Your task to perform on an android device: all mails in gmail Image 0: 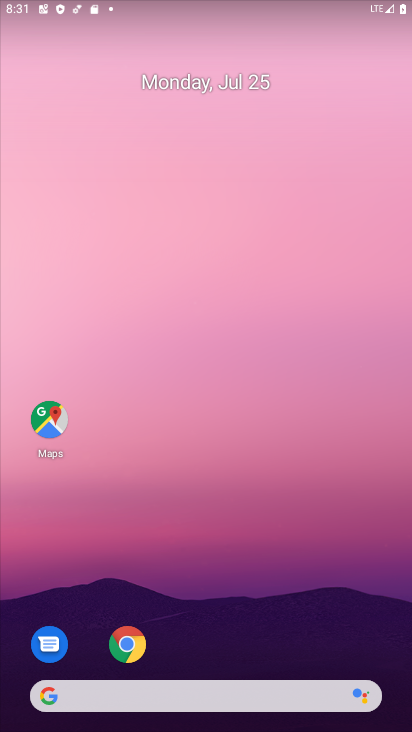
Step 0: drag from (226, 509) to (226, 103)
Your task to perform on an android device: all mails in gmail Image 1: 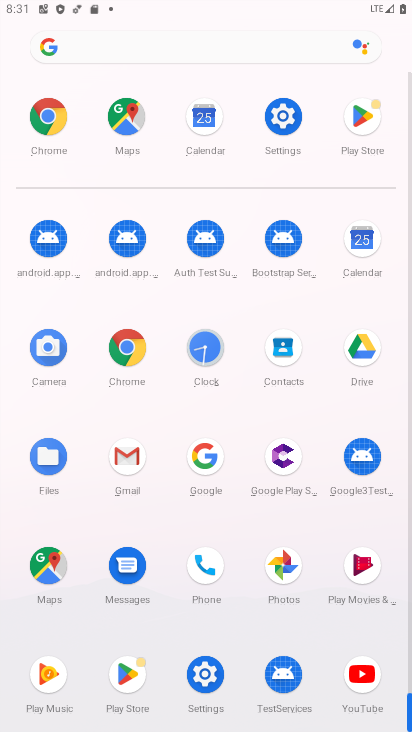
Step 1: click (138, 473)
Your task to perform on an android device: all mails in gmail Image 2: 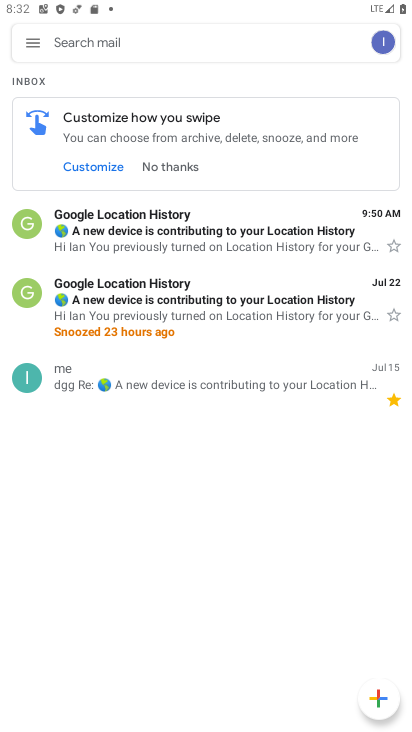
Step 2: click (35, 50)
Your task to perform on an android device: all mails in gmail Image 3: 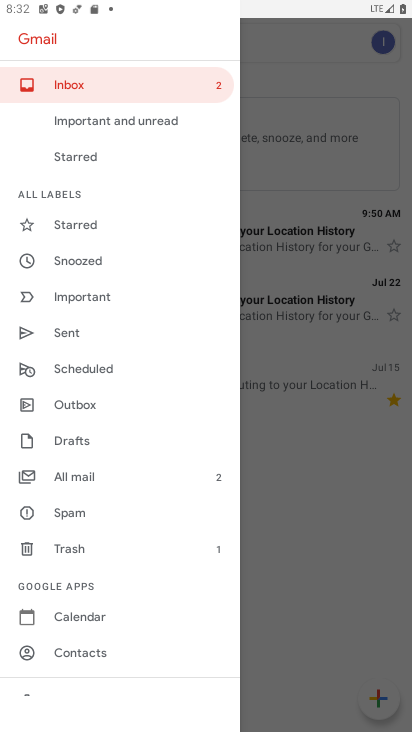
Step 3: click (113, 480)
Your task to perform on an android device: all mails in gmail Image 4: 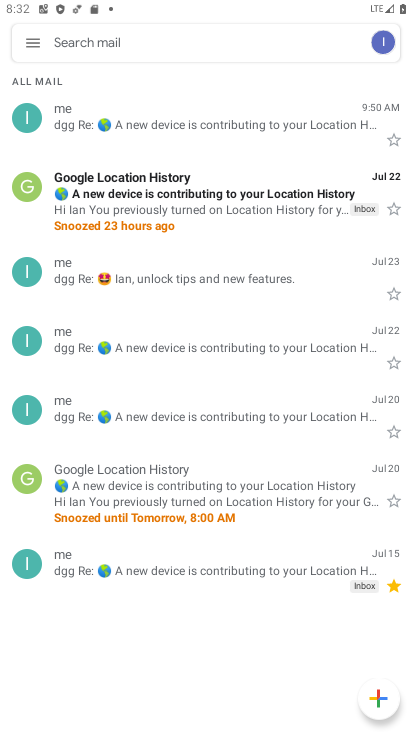
Step 4: task complete